Your task to perform on an android device: Open internet settings Image 0: 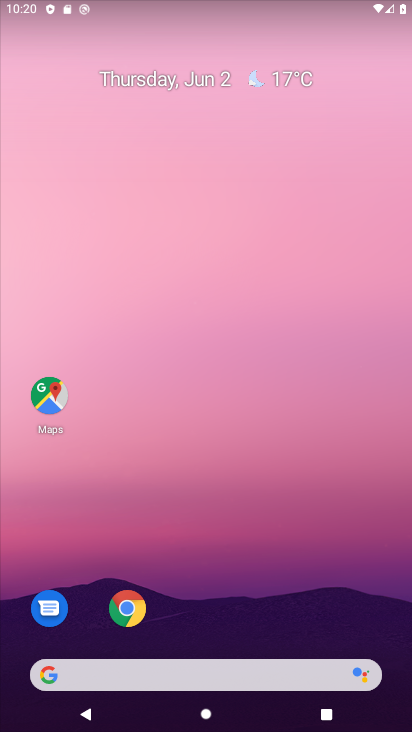
Step 0: drag from (212, 575) to (172, 80)
Your task to perform on an android device: Open internet settings Image 1: 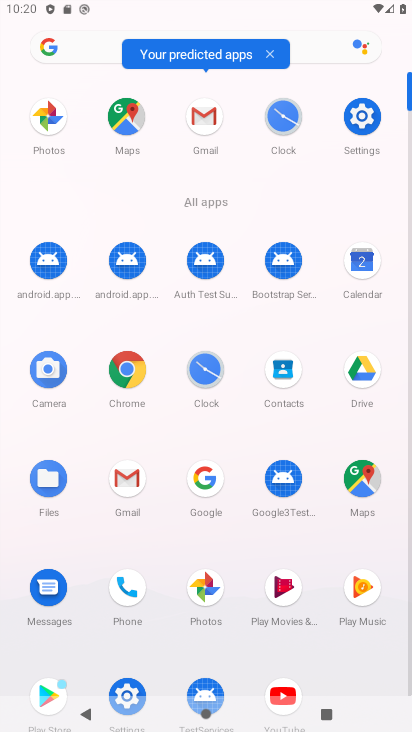
Step 1: click (130, 683)
Your task to perform on an android device: Open internet settings Image 2: 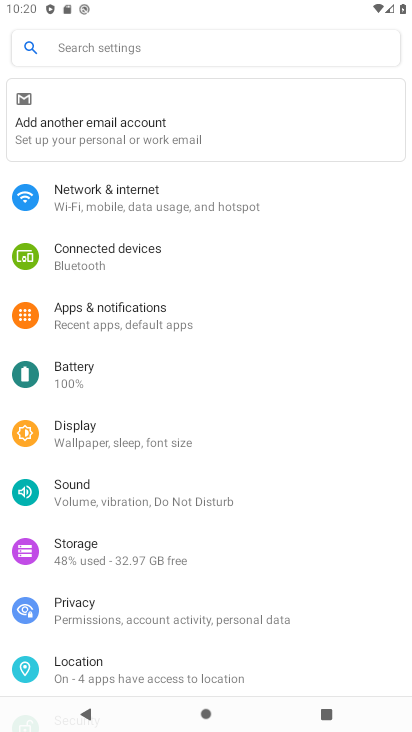
Step 2: click (136, 191)
Your task to perform on an android device: Open internet settings Image 3: 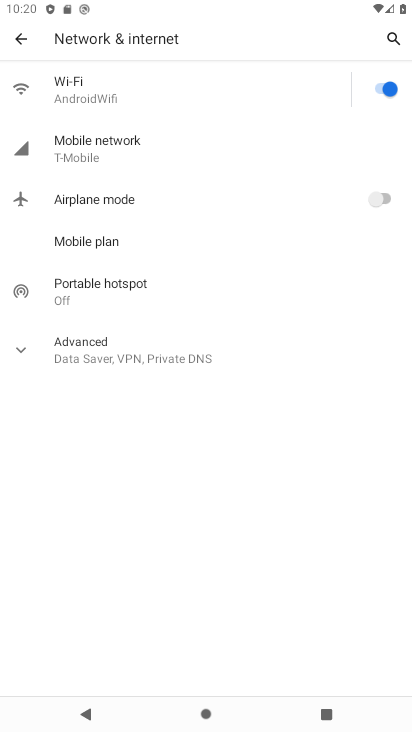
Step 3: task complete